Your task to perform on an android device: Open calendar and show me the fourth week of next month Image 0: 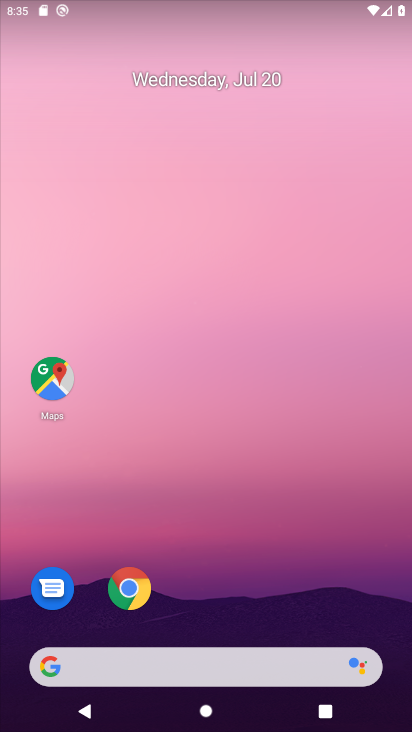
Step 0: press home button
Your task to perform on an android device: Open calendar and show me the fourth week of next month Image 1: 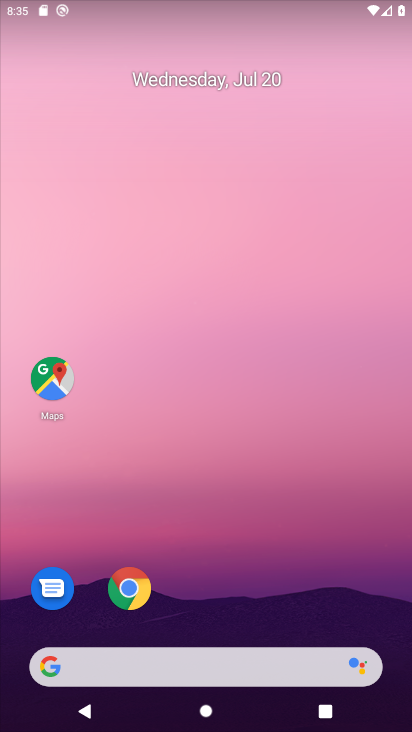
Step 1: drag from (221, 615) to (207, 101)
Your task to perform on an android device: Open calendar and show me the fourth week of next month Image 2: 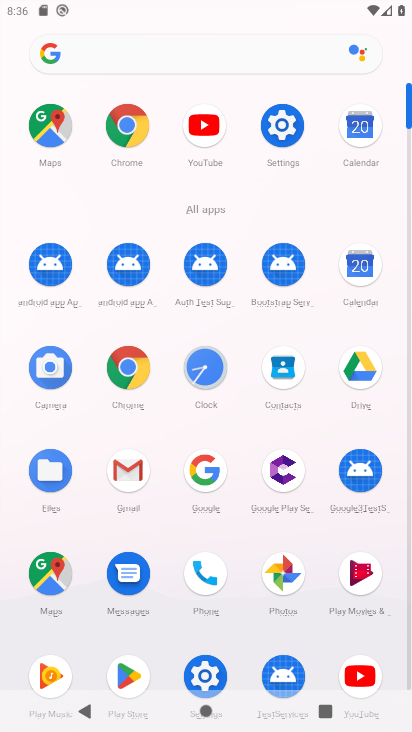
Step 2: click (361, 267)
Your task to perform on an android device: Open calendar and show me the fourth week of next month Image 3: 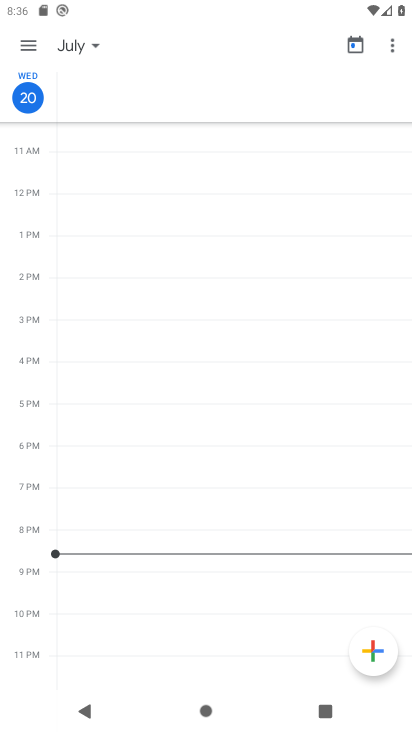
Step 3: click (100, 41)
Your task to perform on an android device: Open calendar and show me the fourth week of next month Image 4: 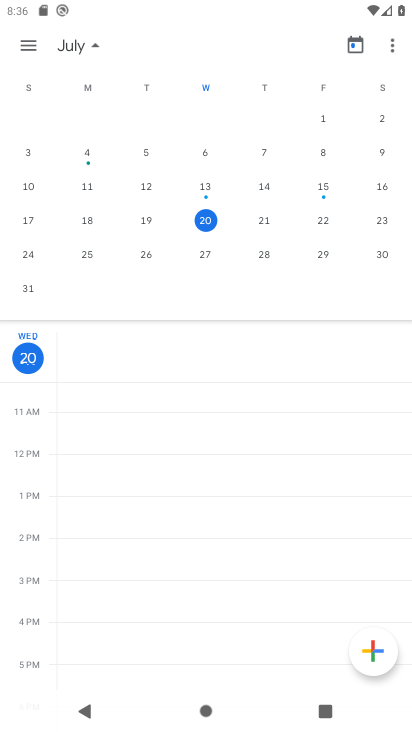
Step 4: drag from (380, 189) to (11, 194)
Your task to perform on an android device: Open calendar and show me the fourth week of next month Image 5: 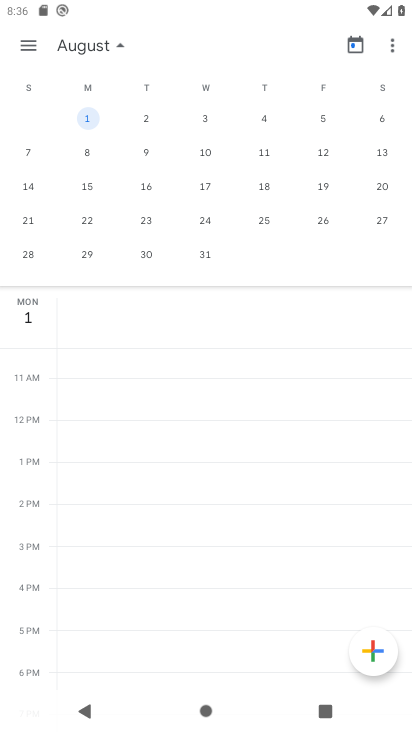
Step 5: click (29, 221)
Your task to perform on an android device: Open calendar and show me the fourth week of next month Image 6: 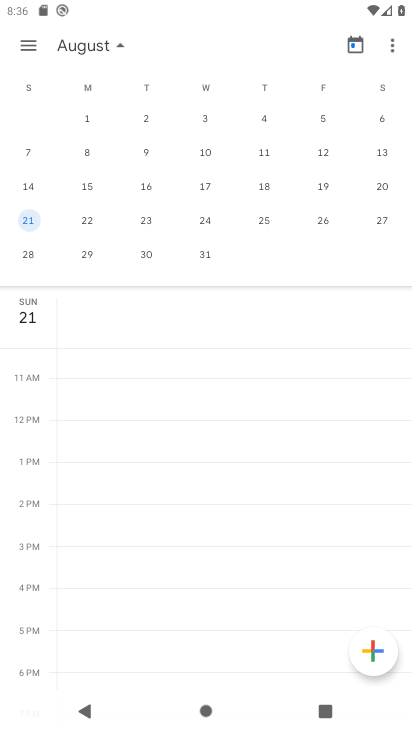
Step 6: click (29, 44)
Your task to perform on an android device: Open calendar and show me the fourth week of next month Image 7: 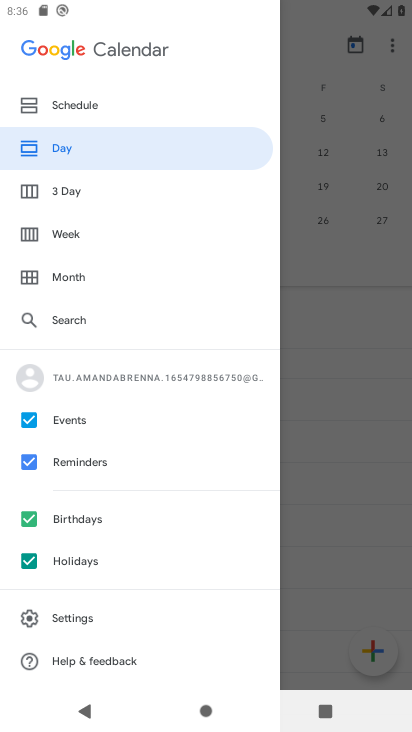
Step 7: click (63, 229)
Your task to perform on an android device: Open calendar and show me the fourth week of next month Image 8: 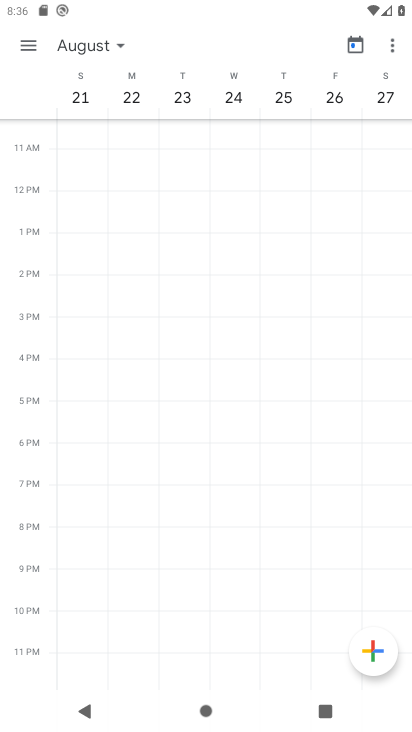
Step 8: click (72, 103)
Your task to perform on an android device: Open calendar and show me the fourth week of next month Image 9: 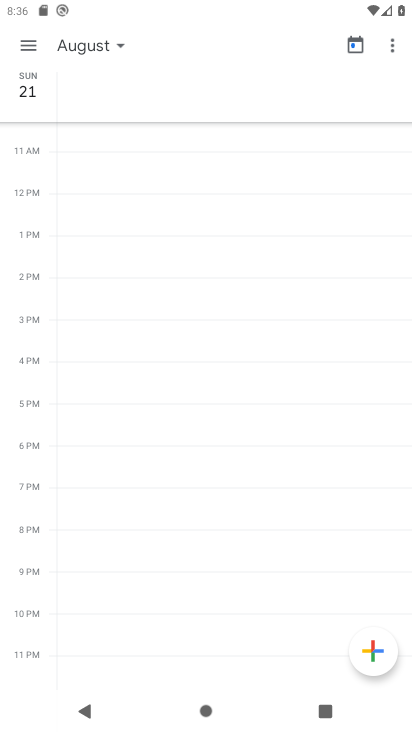
Step 9: click (34, 92)
Your task to perform on an android device: Open calendar and show me the fourth week of next month Image 10: 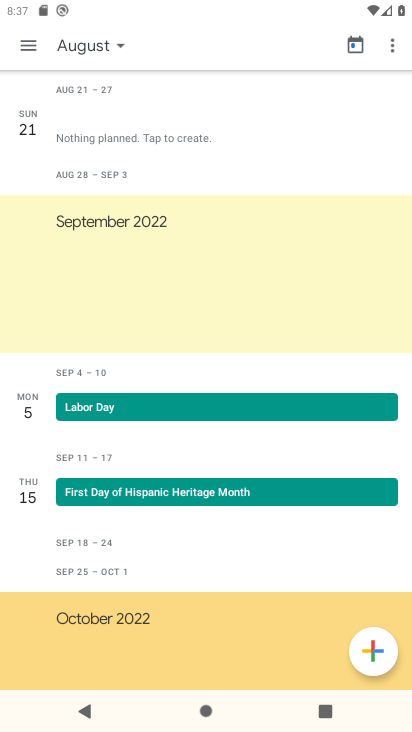
Step 10: task complete